Your task to perform on an android device: check storage Image 0: 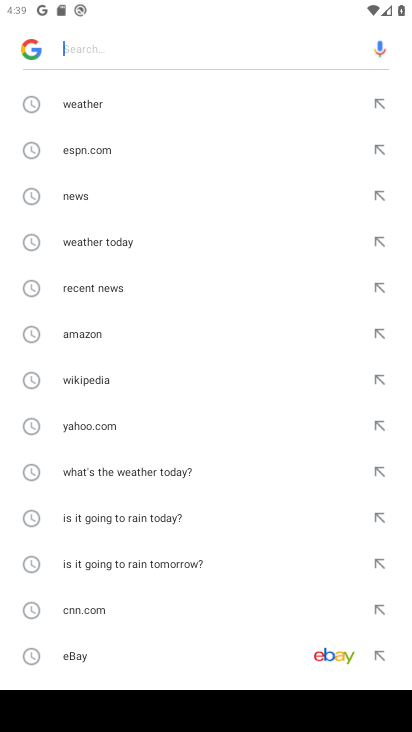
Step 0: press home button
Your task to perform on an android device: check storage Image 1: 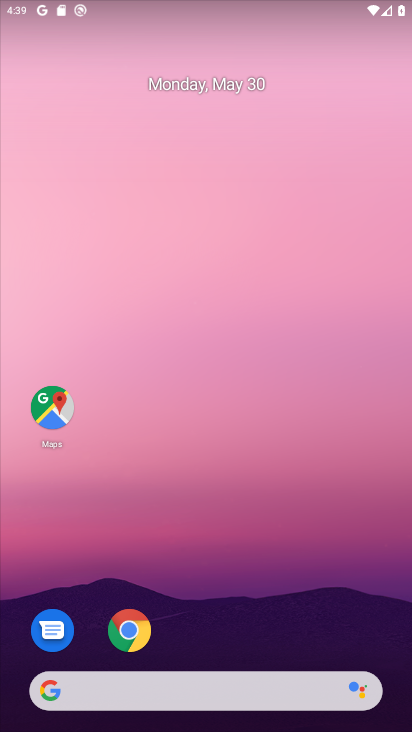
Step 1: drag from (270, 633) to (394, 182)
Your task to perform on an android device: check storage Image 2: 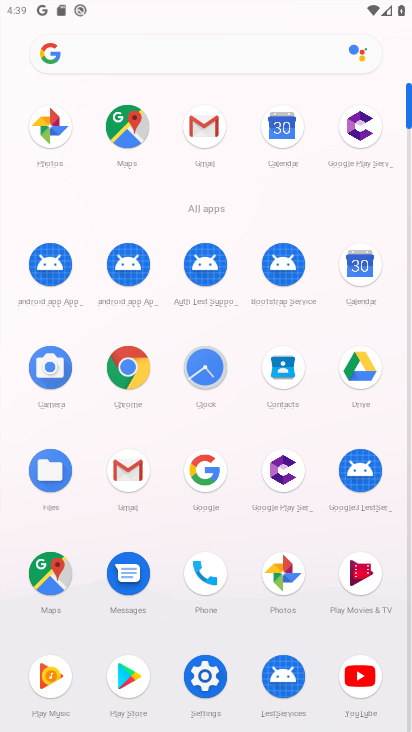
Step 2: click (210, 682)
Your task to perform on an android device: check storage Image 3: 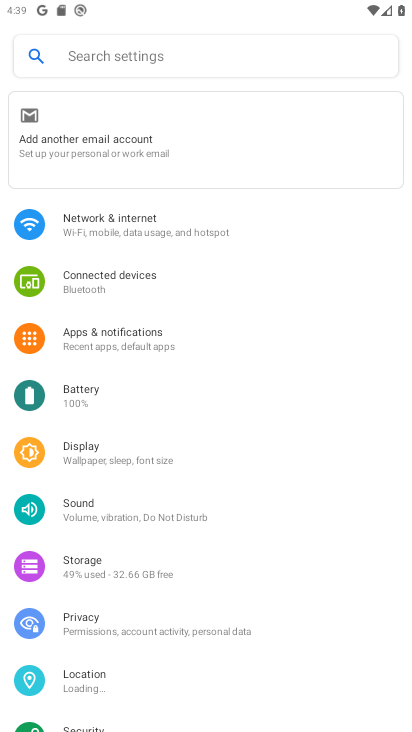
Step 3: click (95, 571)
Your task to perform on an android device: check storage Image 4: 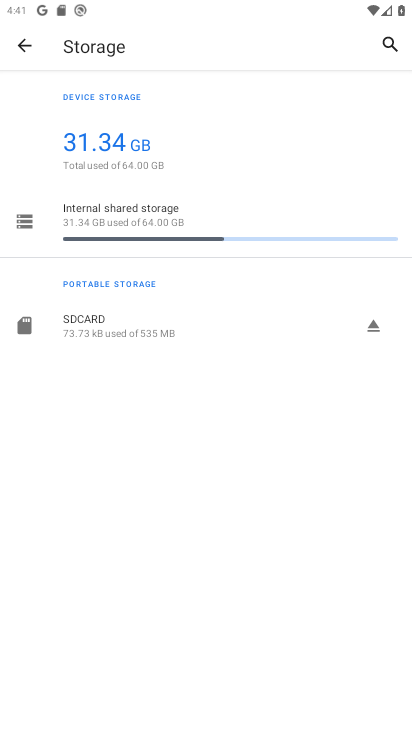
Step 4: task complete